Your task to perform on an android device: Go to Wikipedia Image 0: 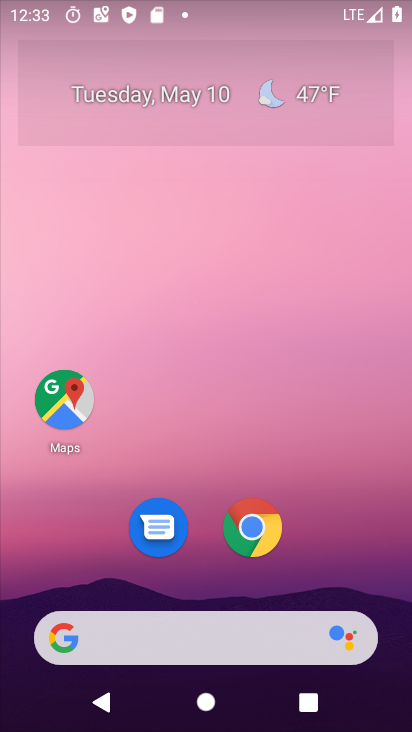
Step 0: drag from (356, 550) to (328, 38)
Your task to perform on an android device: Go to Wikipedia Image 1: 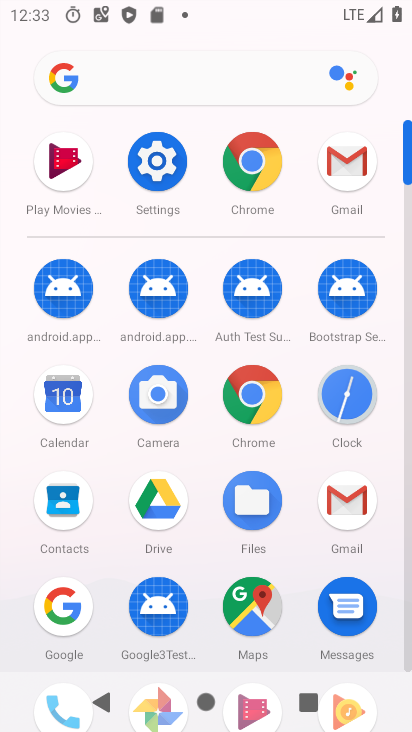
Step 1: click (261, 167)
Your task to perform on an android device: Go to Wikipedia Image 2: 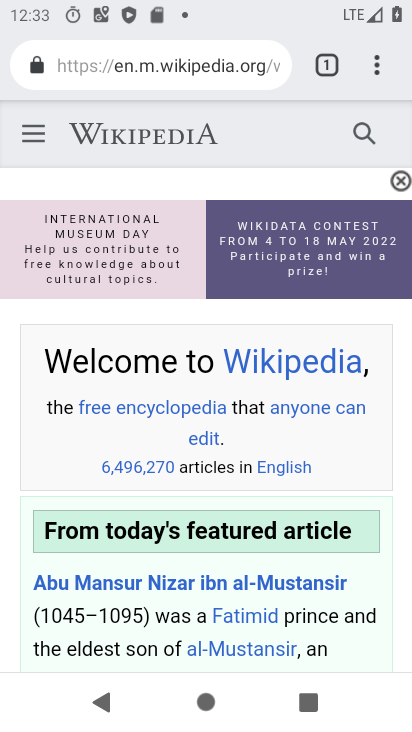
Step 2: task complete